Your task to perform on an android device: uninstall "Instagram" Image 0: 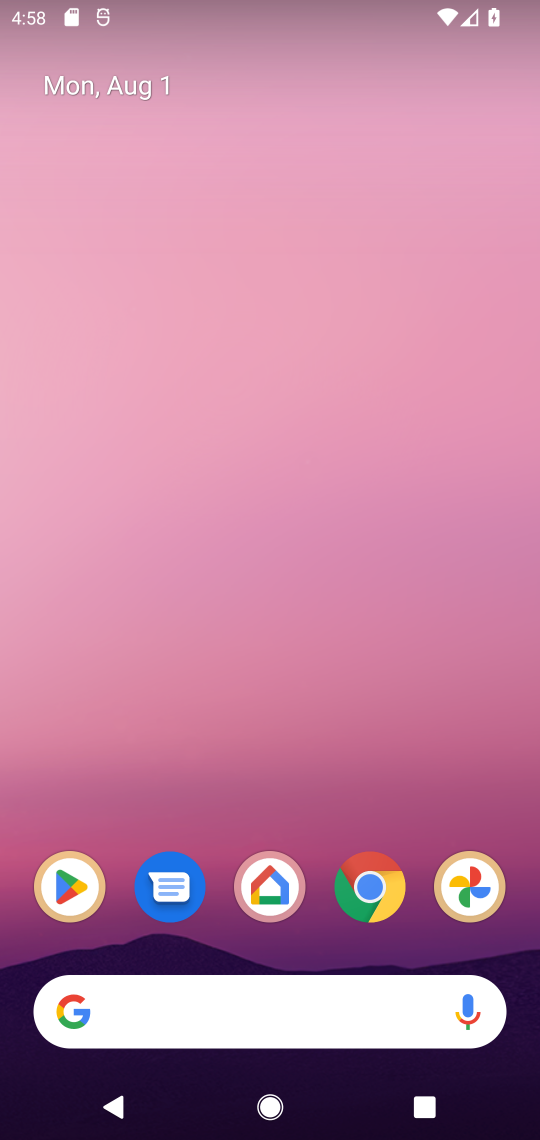
Step 0: click (74, 908)
Your task to perform on an android device: uninstall "Instagram" Image 1: 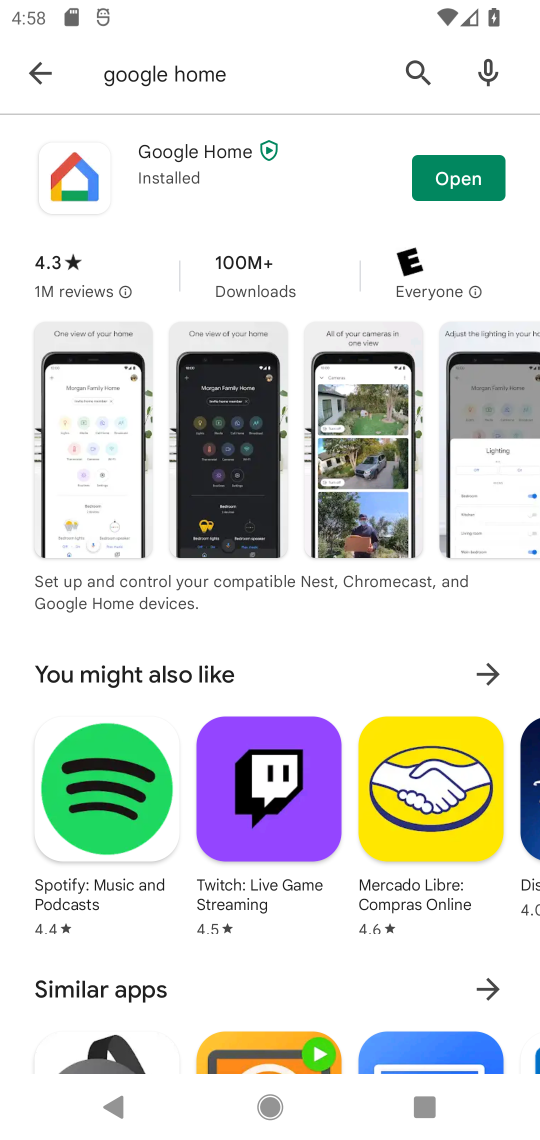
Step 1: click (55, 73)
Your task to perform on an android device: uninstall "Instagram" Image 2: 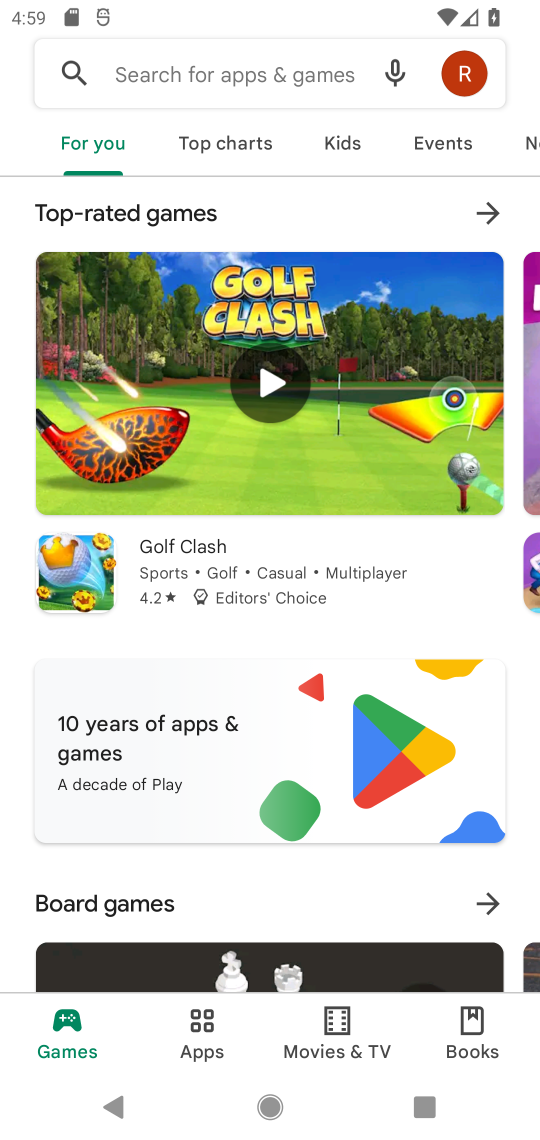
Step 2: click (192, 57)
Your task to perform on an android device: uninstall "Instagram" Image 3: 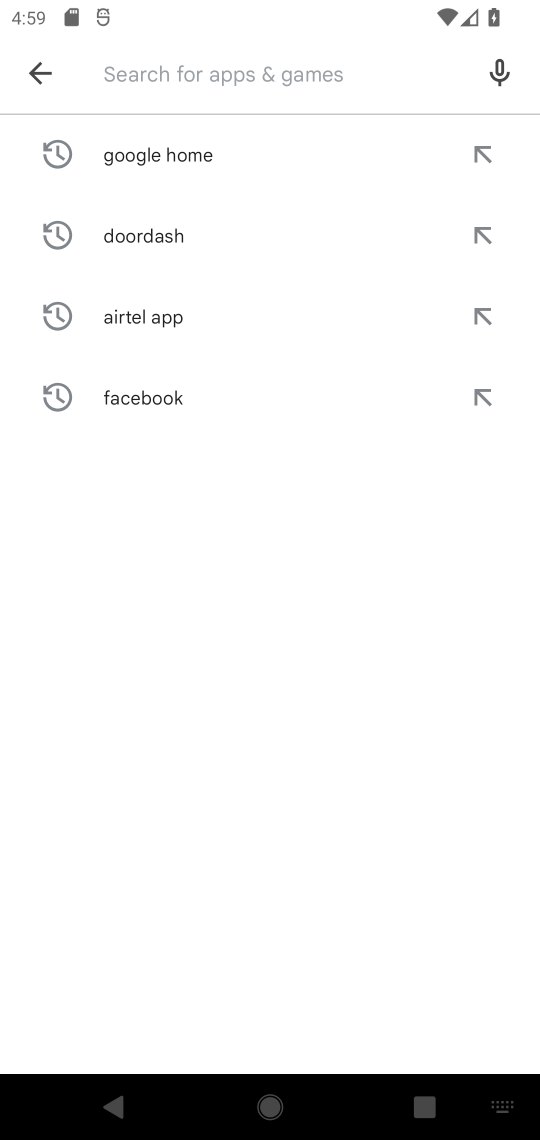
Step 3: type "Instagram"
Your task to perform on an android device: uninstall "Instagram" Image 4: 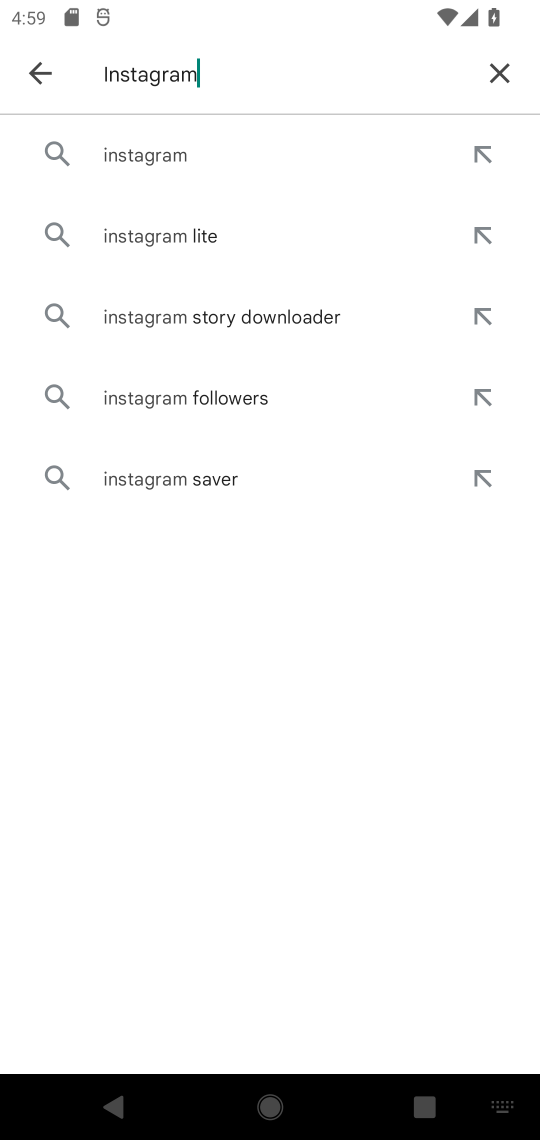
Step 4: click (177, 168)
Your task to perform on an android device: uninstall "Instagram" Image 5: 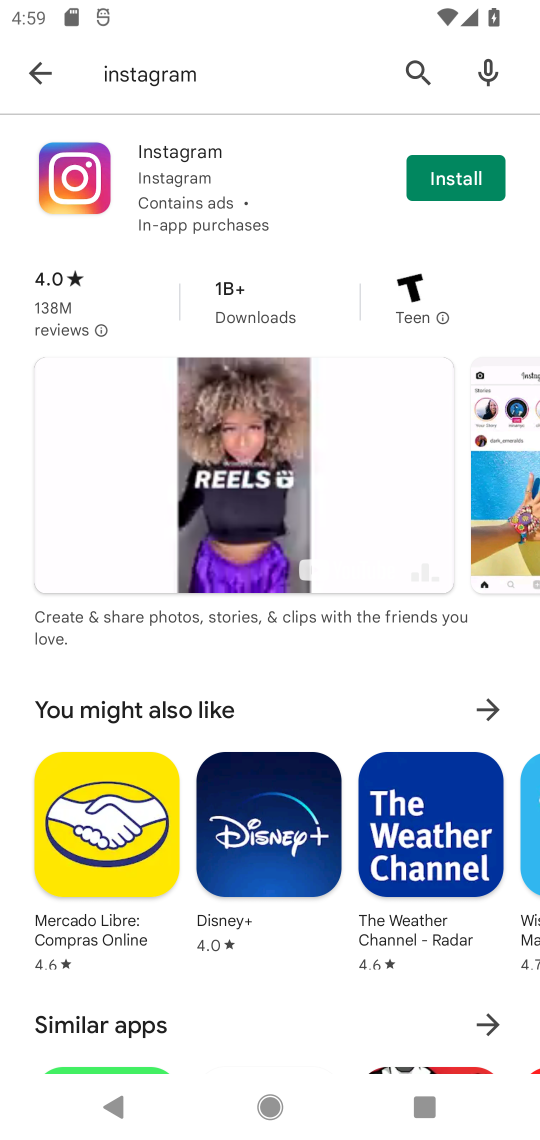
Step 5: task complete